Your task to perform on an android device: clear history in the chrome app Image 0: 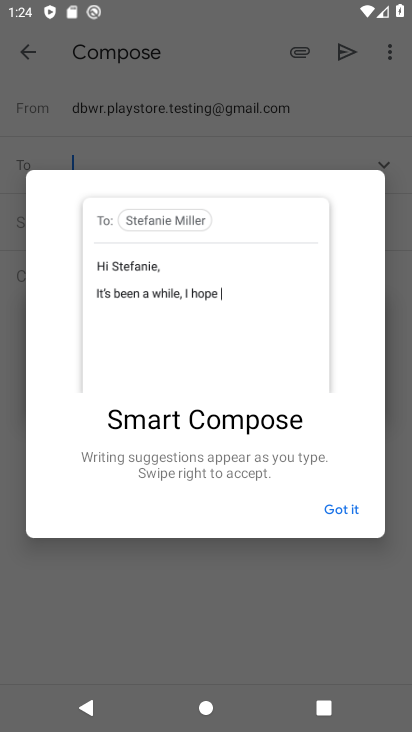
Step 0: press home button
Your task to perform on an android device: clear history in the chrome app Image 1: 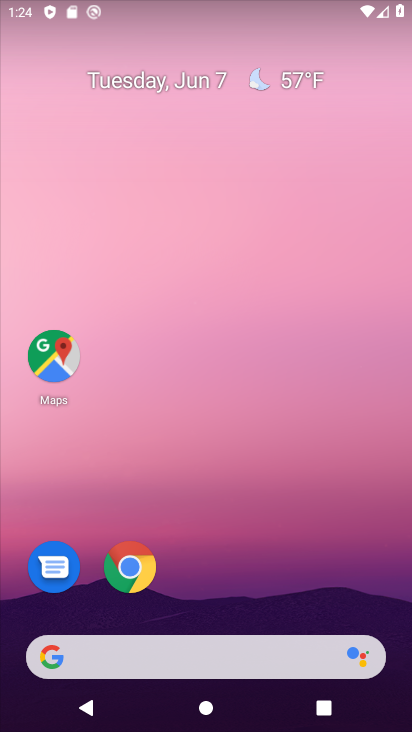
Step 1: click (135, 567)
Your task to perform on an android device: clear history in the chrome app Image 2: 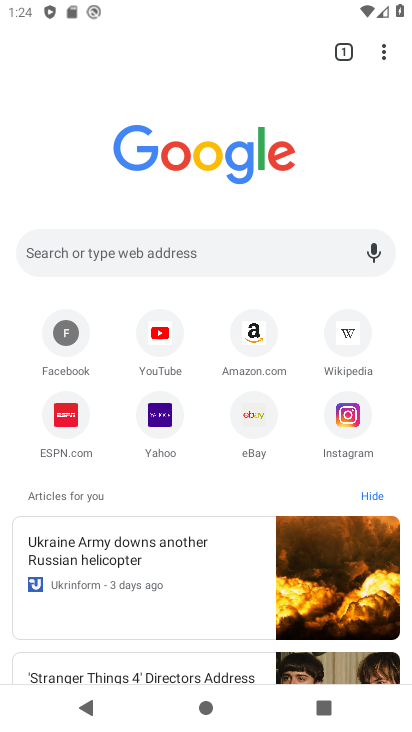
Step 2: click (377, 55)
Your task to perform on an android device: clear history in the chrome app Image 3: 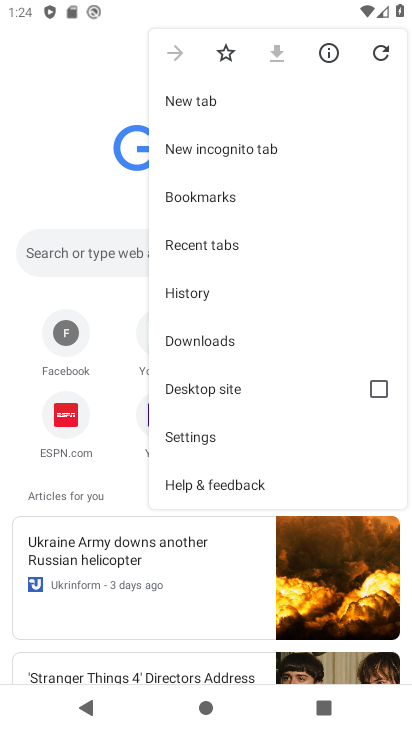
Step 3: click (289, 437)
Your task to perform on an android device: clear history in the chrome app Image 4: 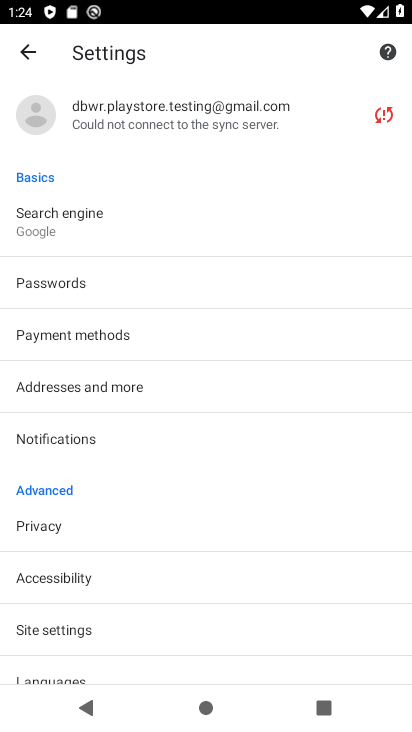
Step 4: click (87, 530)
Your task to perform on an android device: clear history in the chrome app Image 5: 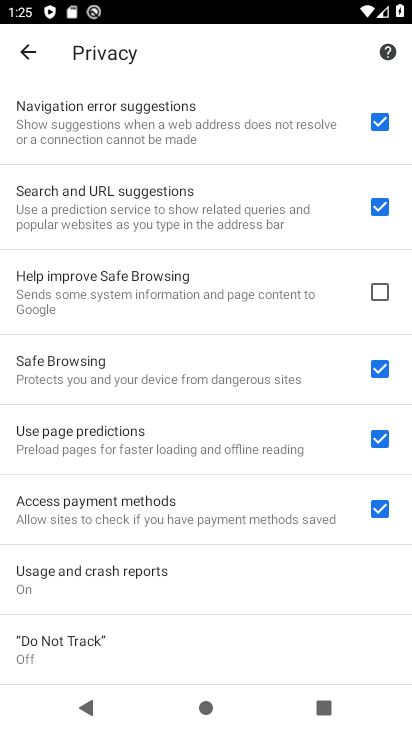
Step 5: drag from (239, 557) to (253, 116)
Your task to perform on an android device: clear history in the chrome app Image 6: 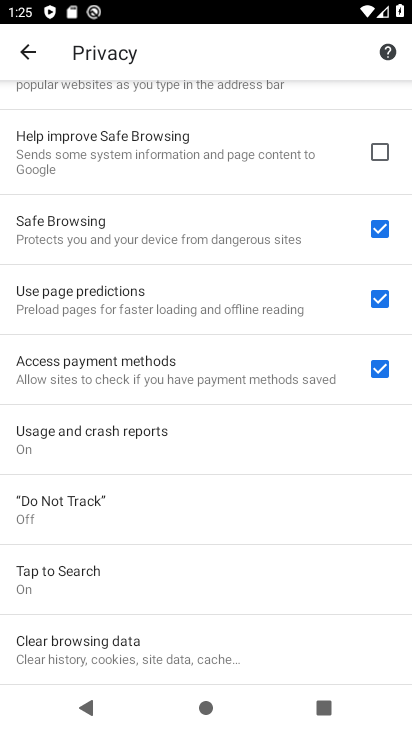
Step 6: click (210, 653)
Your task to perform on an android device: clear history in the chrome app Image 7: 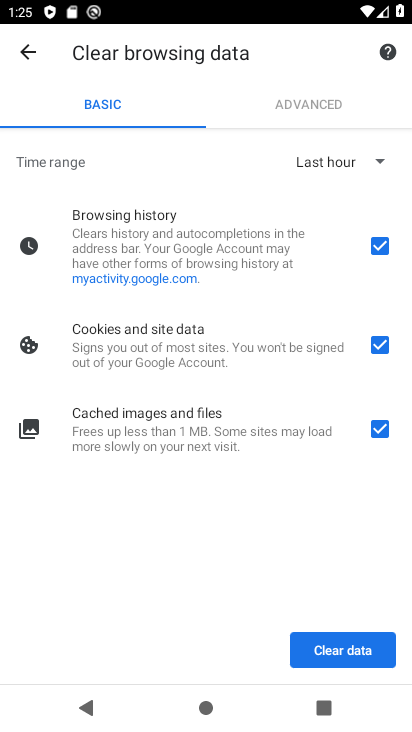
Step 7: click (379, 341)
Your task to perform on an android device: clear history in the chrome app Image 8: 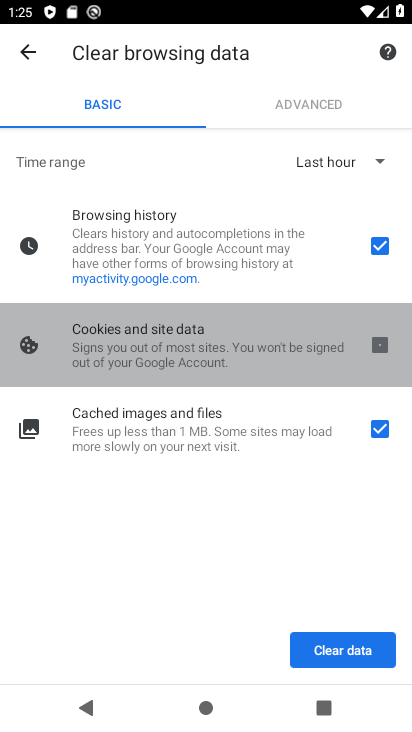
Step 8: click (375, 435)
Your task to perform on an android device: clear history in the chrome app Image 9: 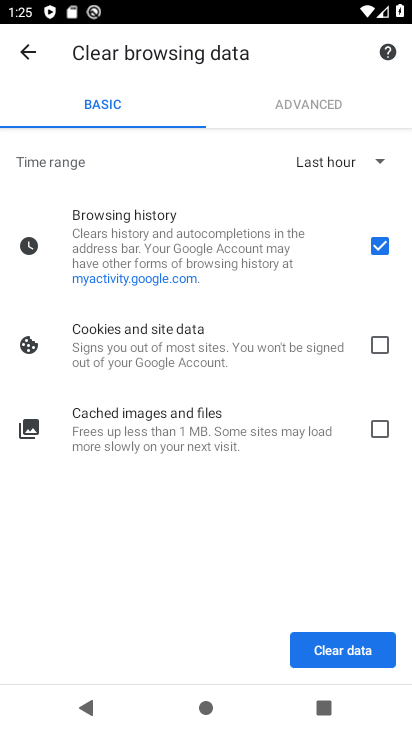
Step 9: click (345, 630)
Your task to perform on an android device: clear history in the chrome app Image 10: 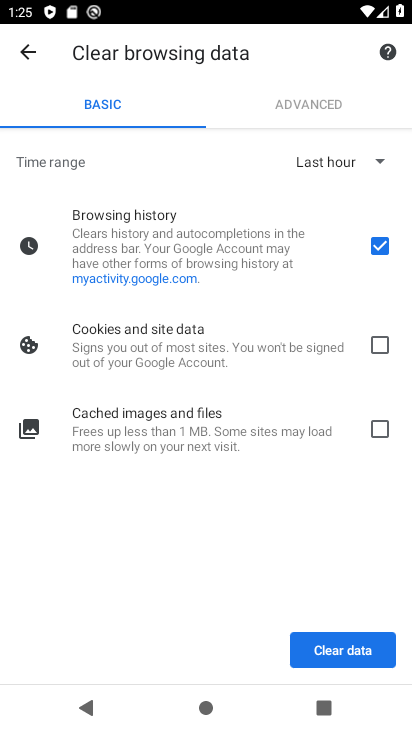
Step 10: click (341, 654)
Your task to perform on an android device: clear history in the chrome app Image 11: 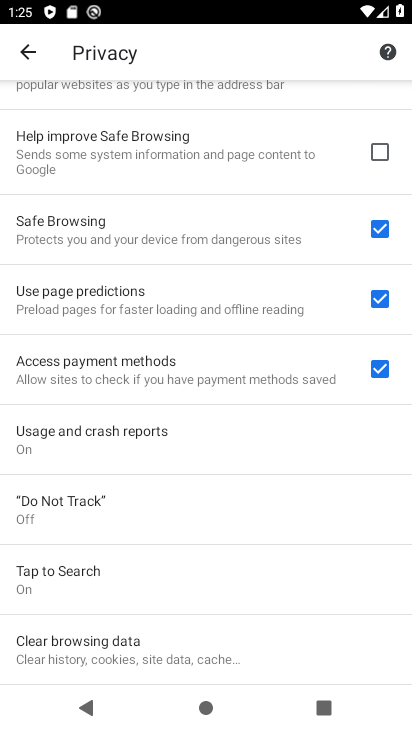
Step 11: task complete